Your task to perform on an android device: toggle improve location accuracy Image 0: 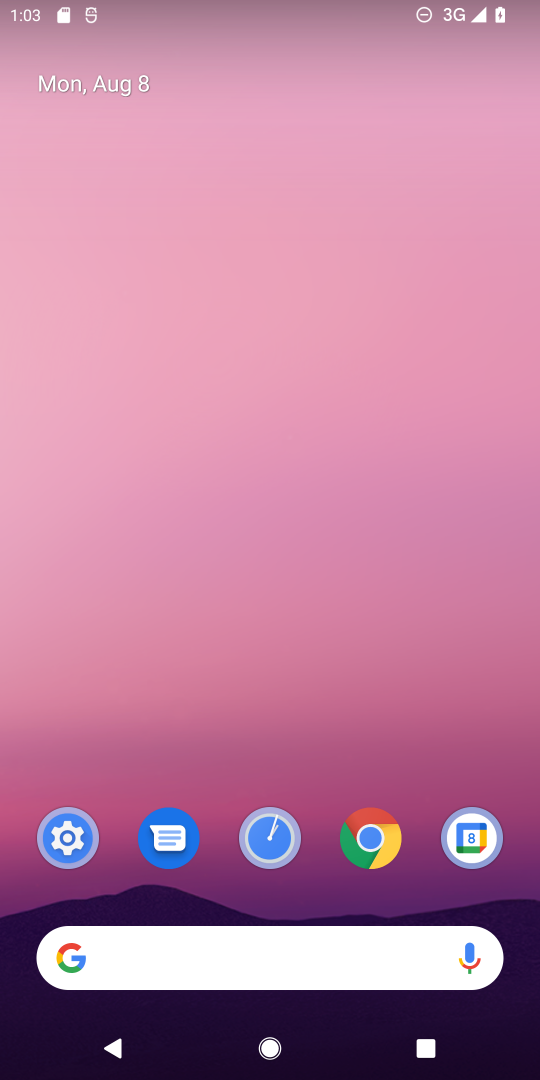
Step 0: press home button
Your task to perform on an android device: toggle improve location accuracy Image 1: 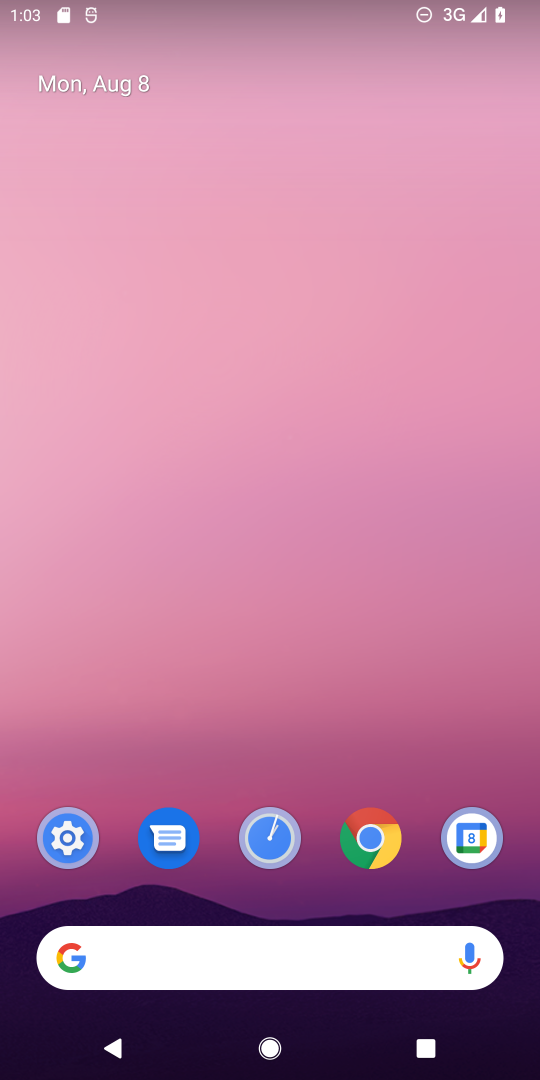
Step 1: drag from (205, 904) to (250, 70)
Your task to perform on an android device: toggle improve location accuracy Image 2: 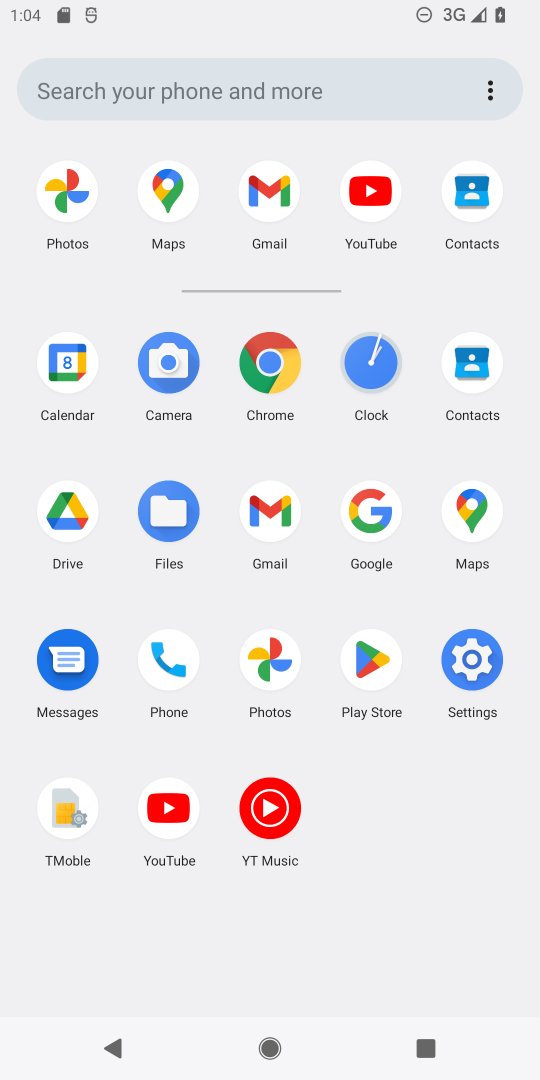
Step 2: click (477, 673)
Your task to perform on an android device: toggle improve location accuracy Image 3: 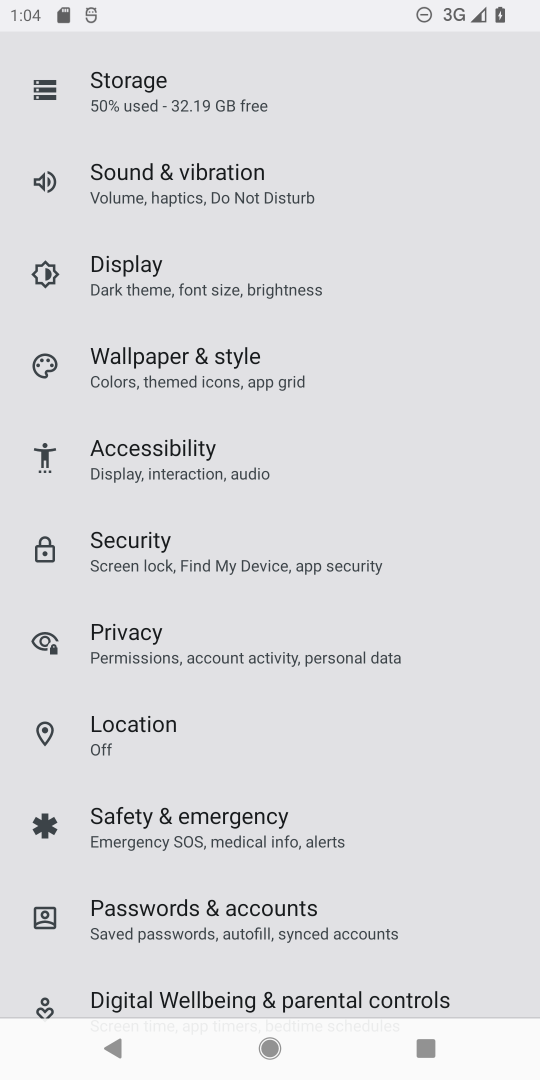
Step 3: click (148, 737)
Your task to perform on an android device: toggle improve location accuracy Image 4: 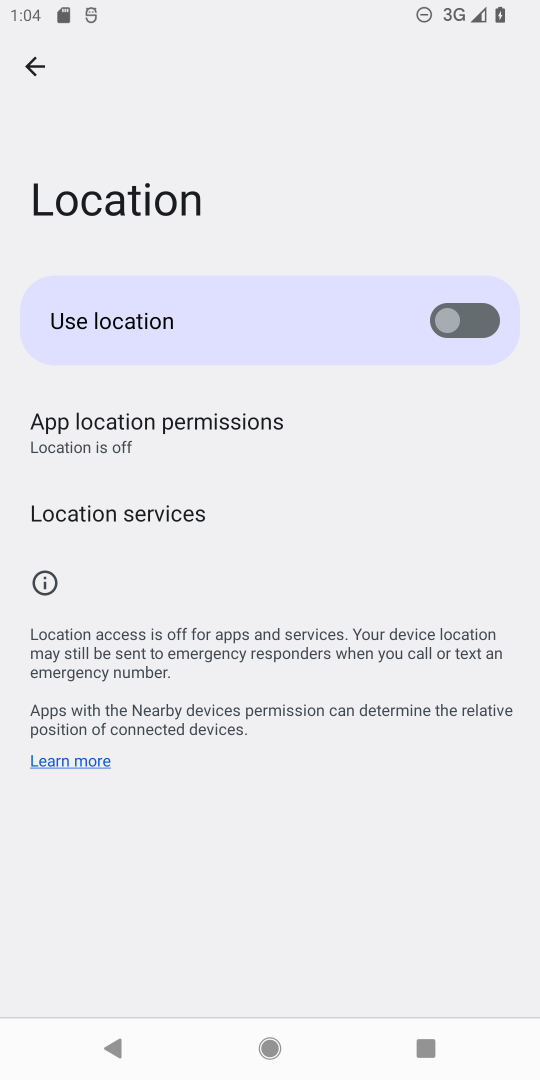
Step 4: click (141, 508)
Your task to perform on an android device: toggle improve location accuracy Image 5: 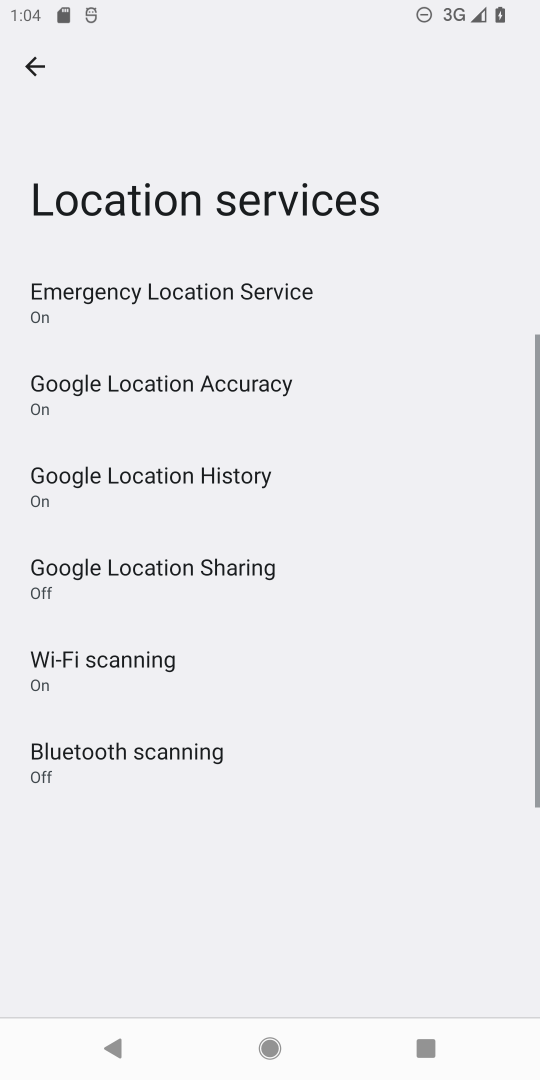
Step 5: click (167, 387)
Your task to perform on an android device: toggle improve location accuracy Image 6: 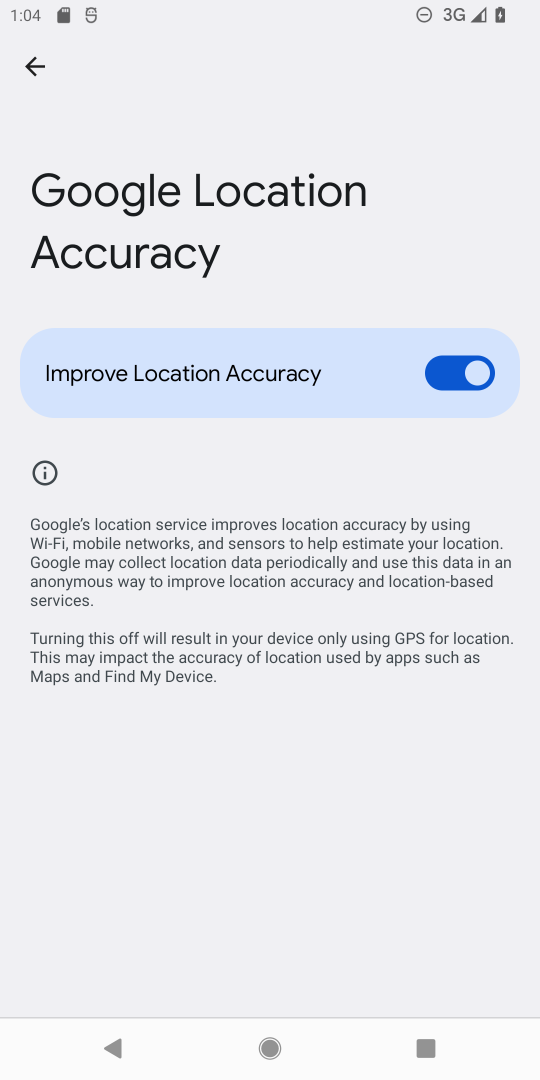
Step 6: click (477, 371)
Your task to perform on an android device: toggle improve location accuracy Image 7: 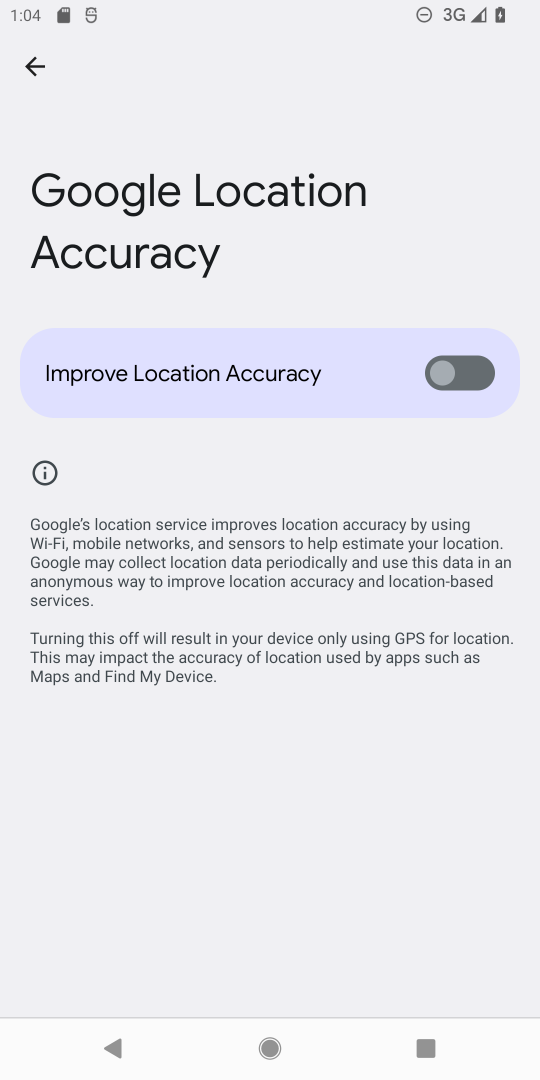
Step 7: task complete